Your task to perform on an android device: turn off javascript in the chrome app Image 0: 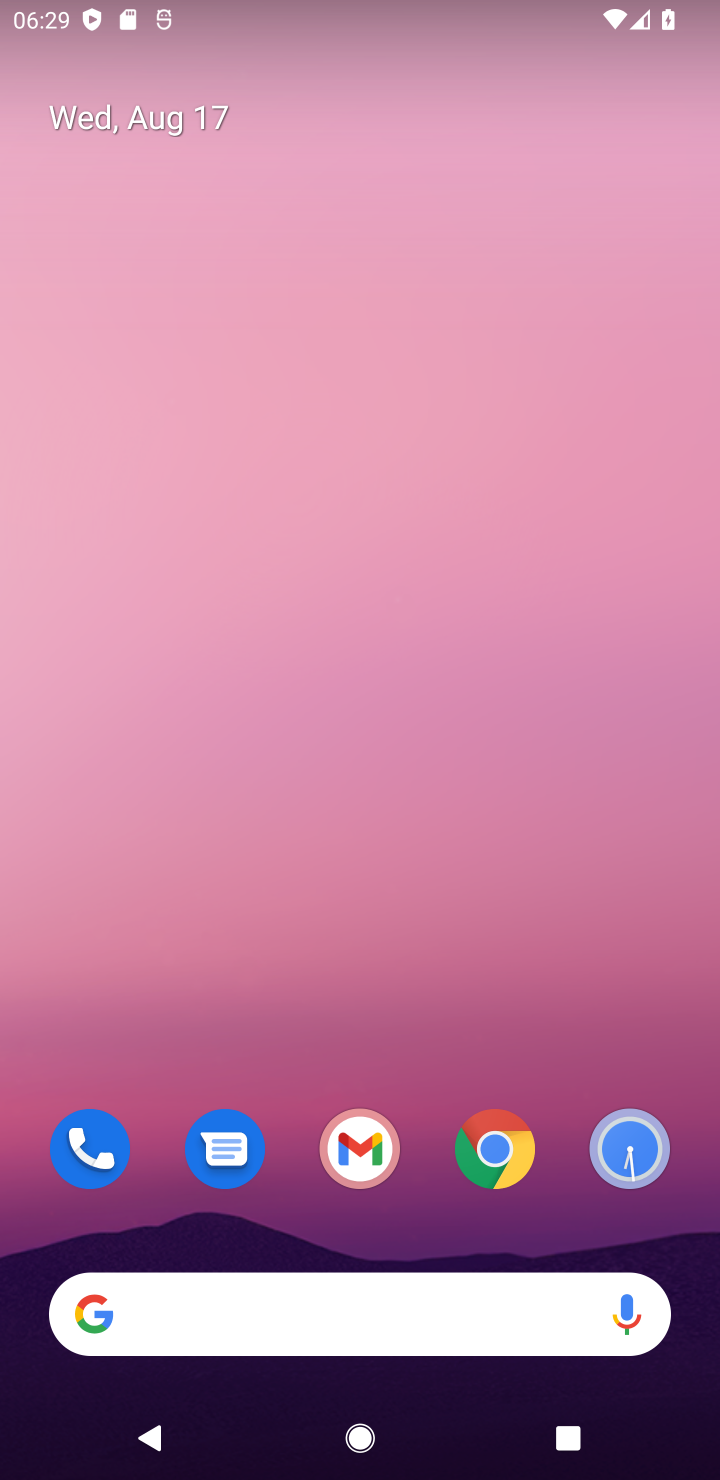
Step 0: click (498, 1153)
Your task to perform on an android device: turn off javascript in the chrome app Image 1: 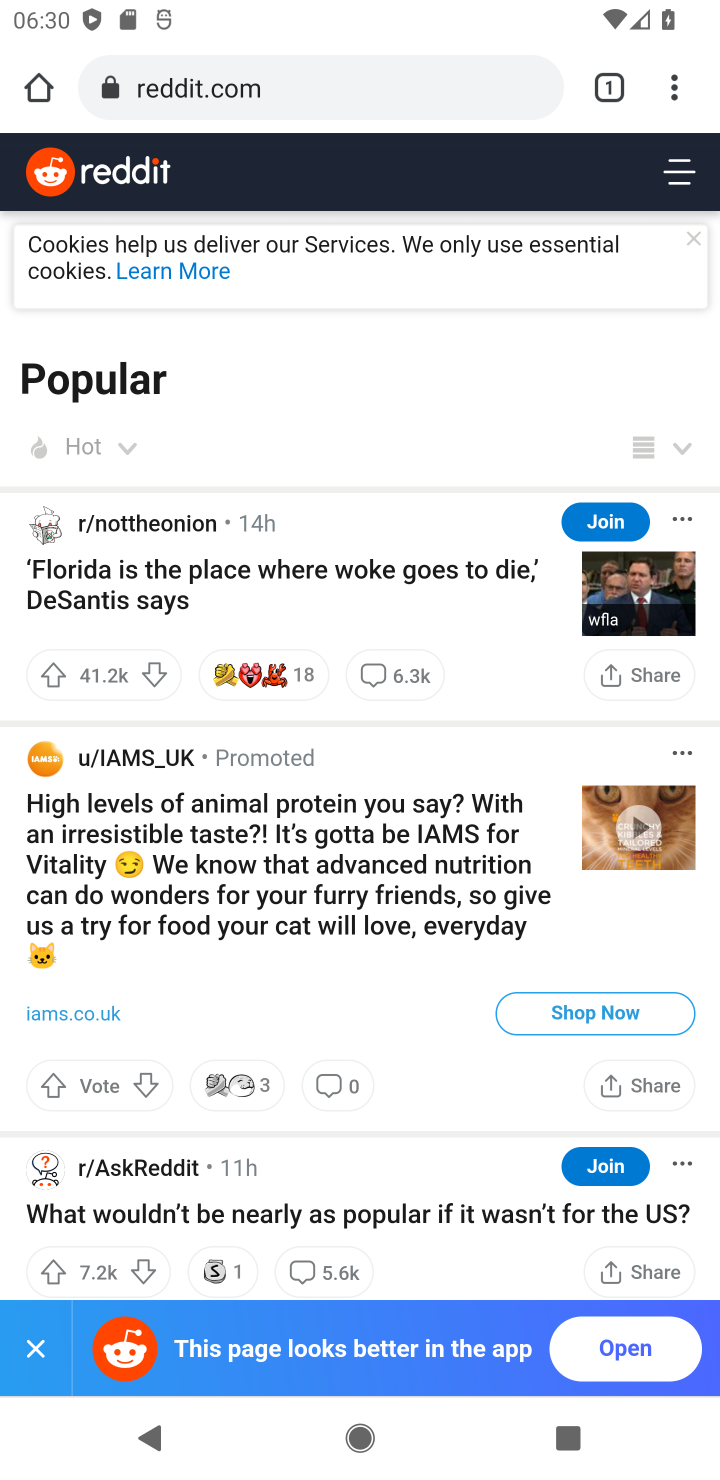
Step 1: click (674, 93)
Your task to perform on an android device: turn off javascript in the chrome app Image 2: 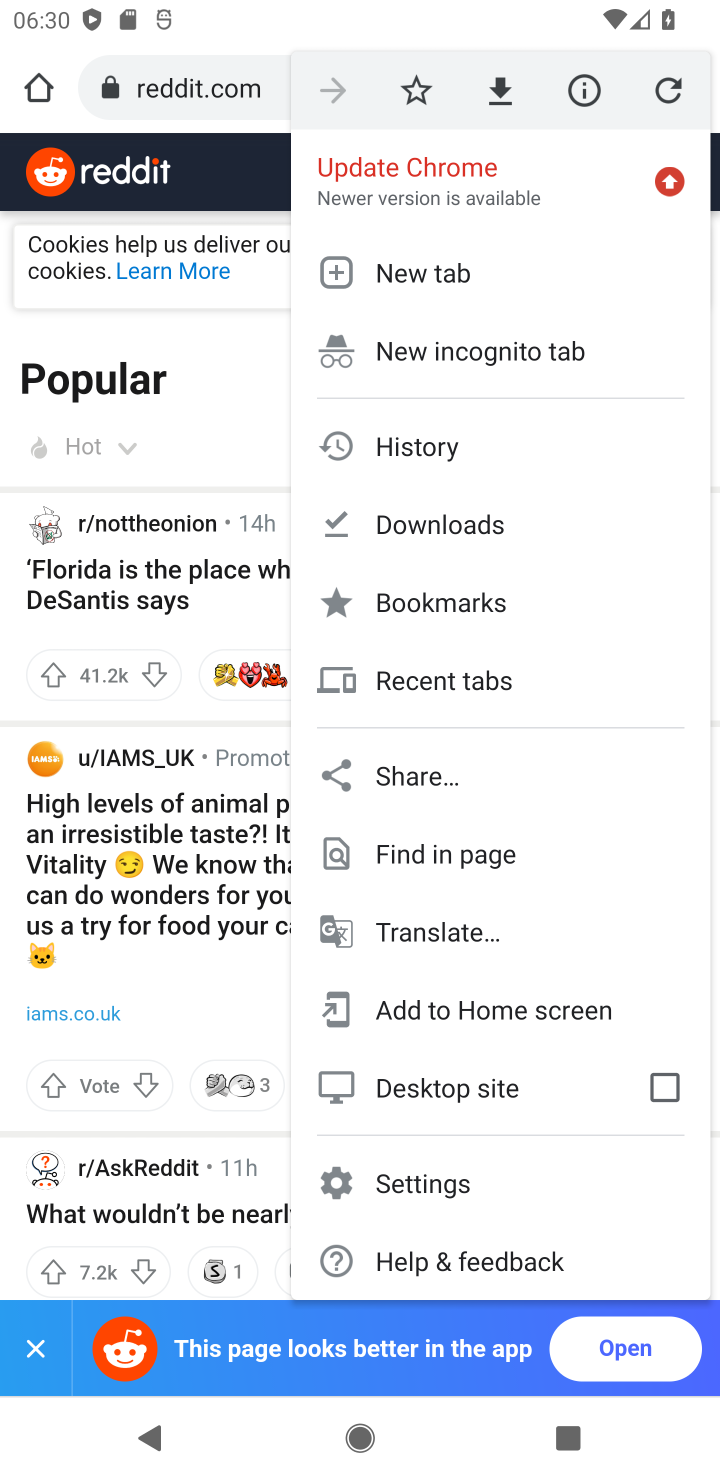
Step 2: click (429, 1173)
Your task to perform on an android device: turn off javascript in the chrome app Image 3: 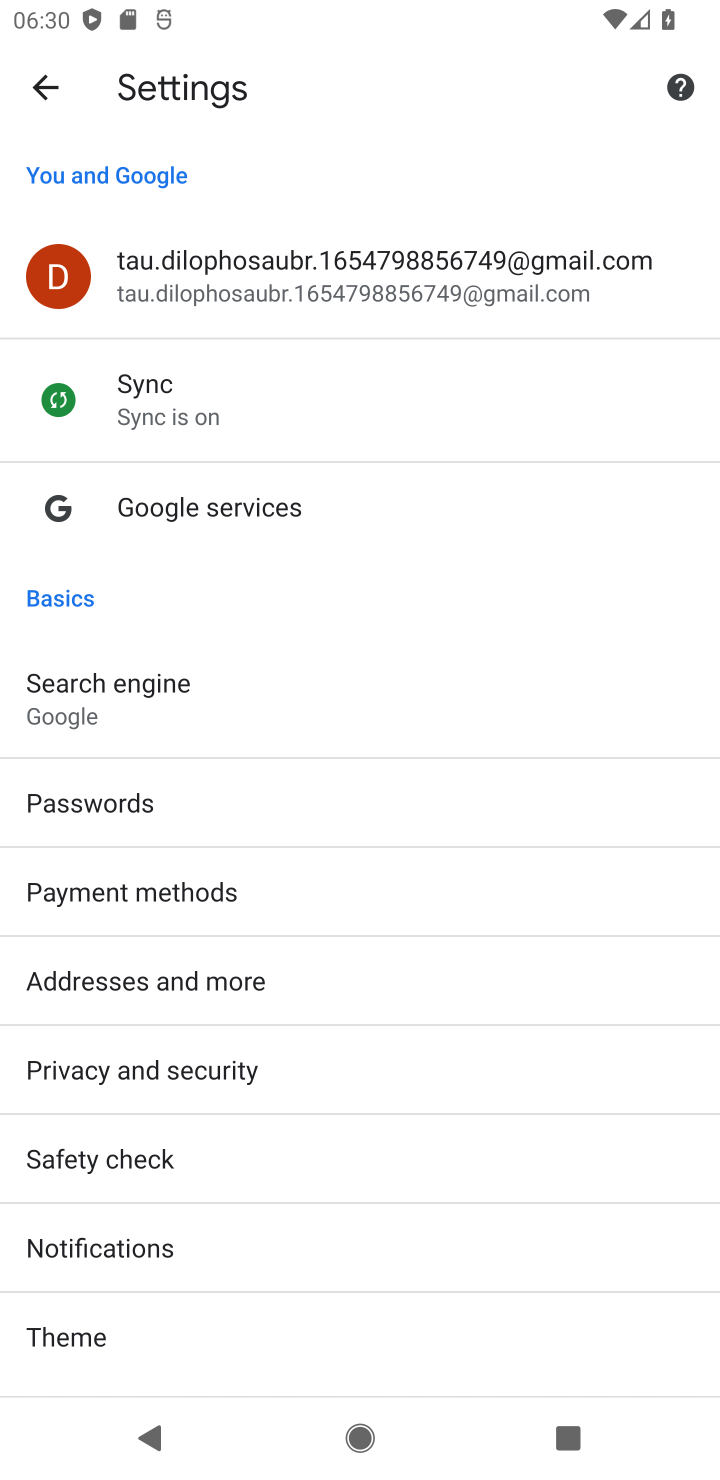
Step 3: drag from (297, 1241) to (281, 824)
Your task to perform on an android device: turn off javascript in the chrome app Image 4: 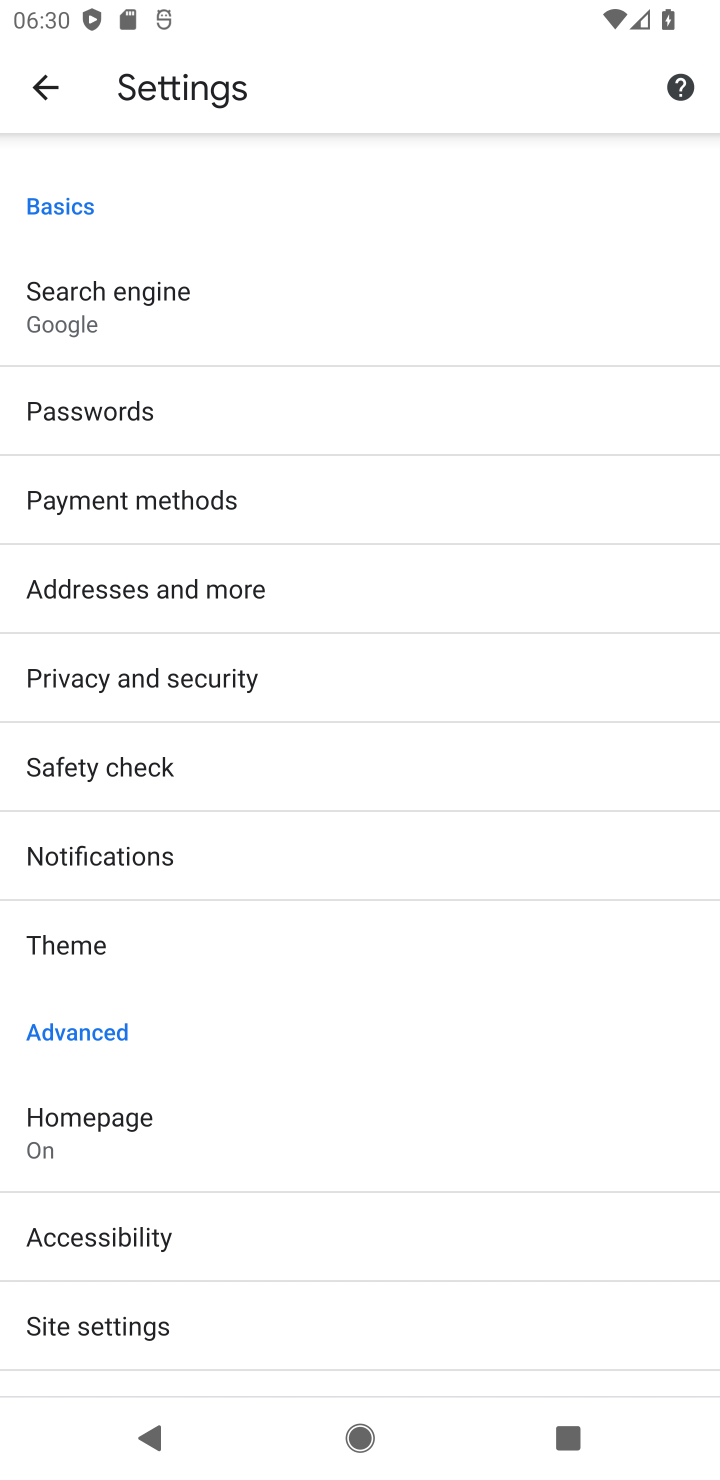
Step 4: click (116, 1316)
Your task to perform on an android device: turn off javascript in the chrome app Image 5: 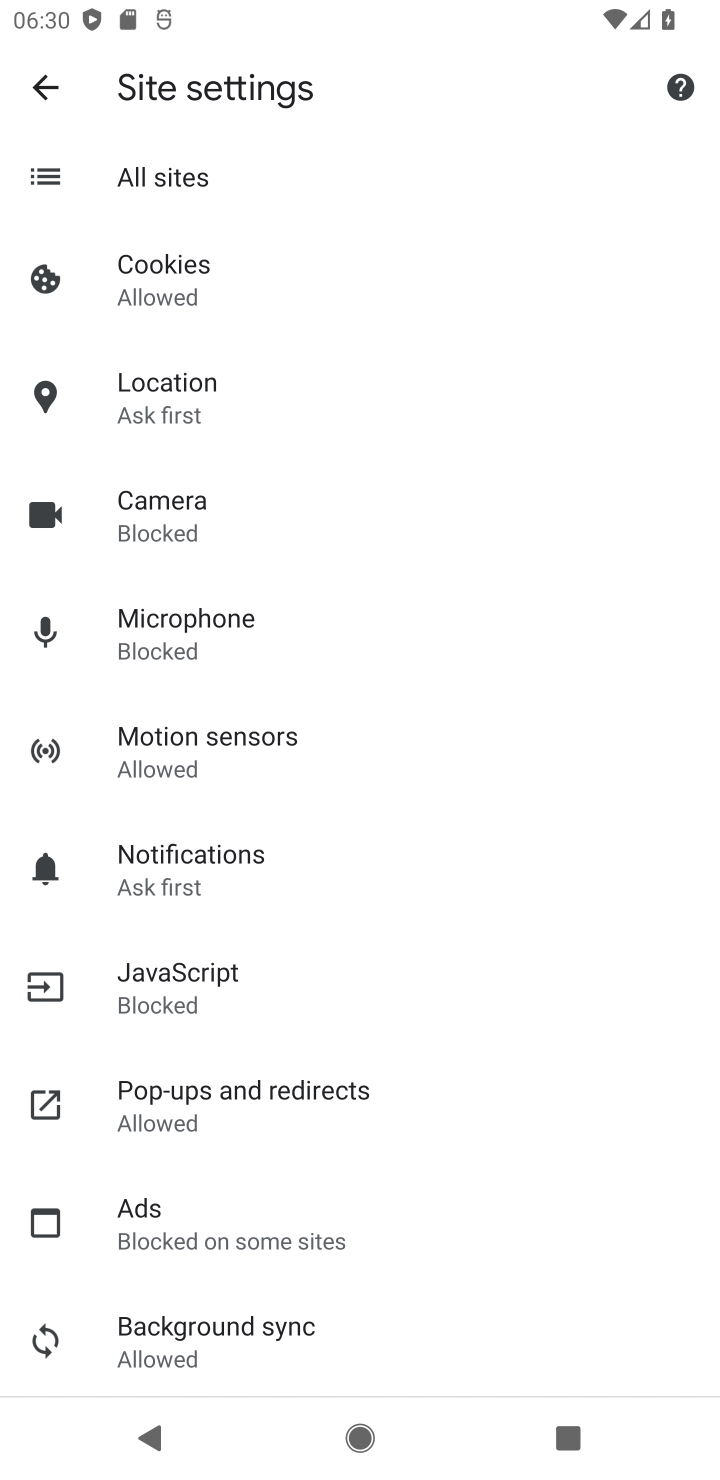
Step 5: click (192, 977)
Your task to perform on an android device: turn off javascript in the chrome app Image 6: 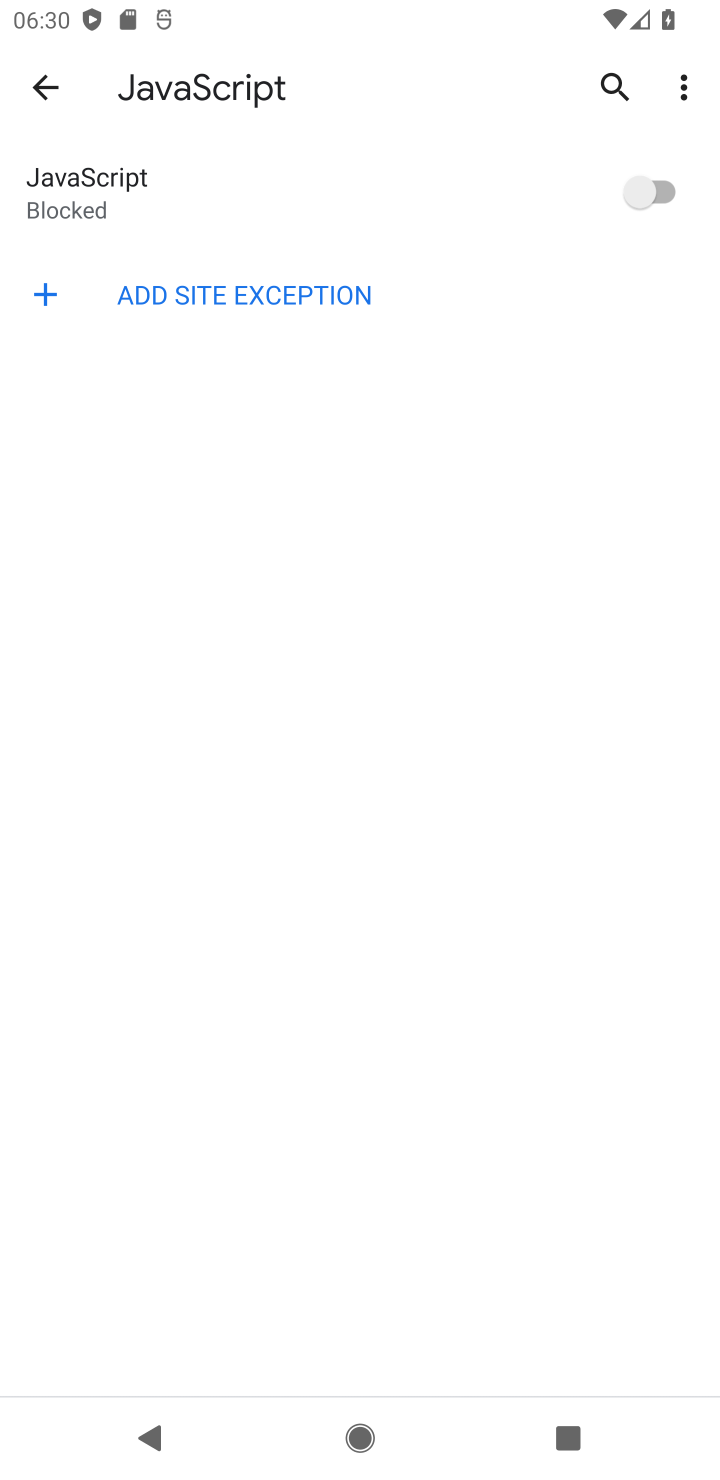
Step 6: task complete